Your task to perform on an android device: Do I have any events this weekend? Image 0: 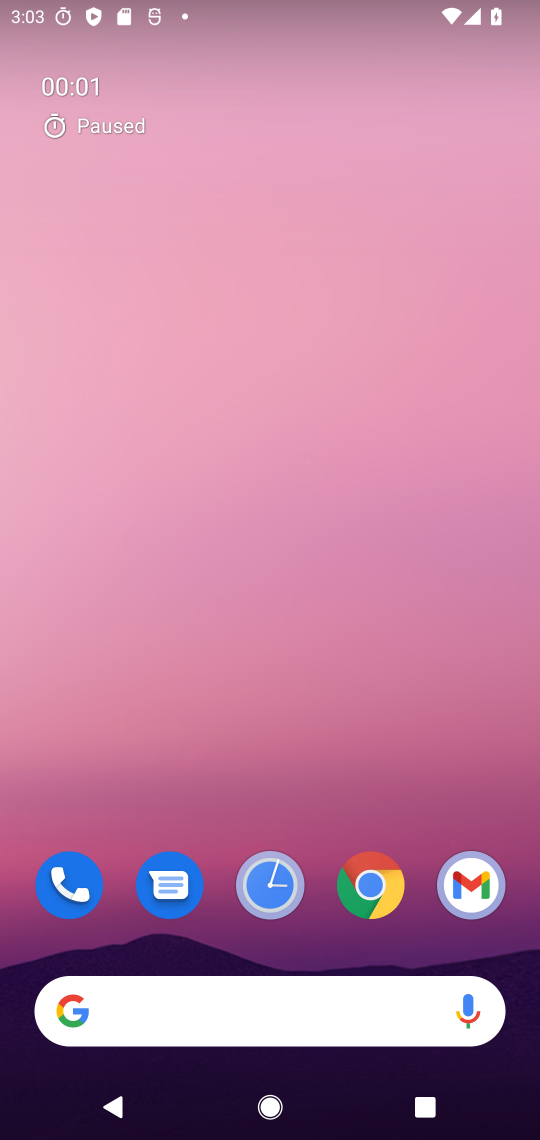
Step 0: drag from (258, 848) to (252, 168)
Your task to perform on an android device: Do I have any events this weekend? Image 1: 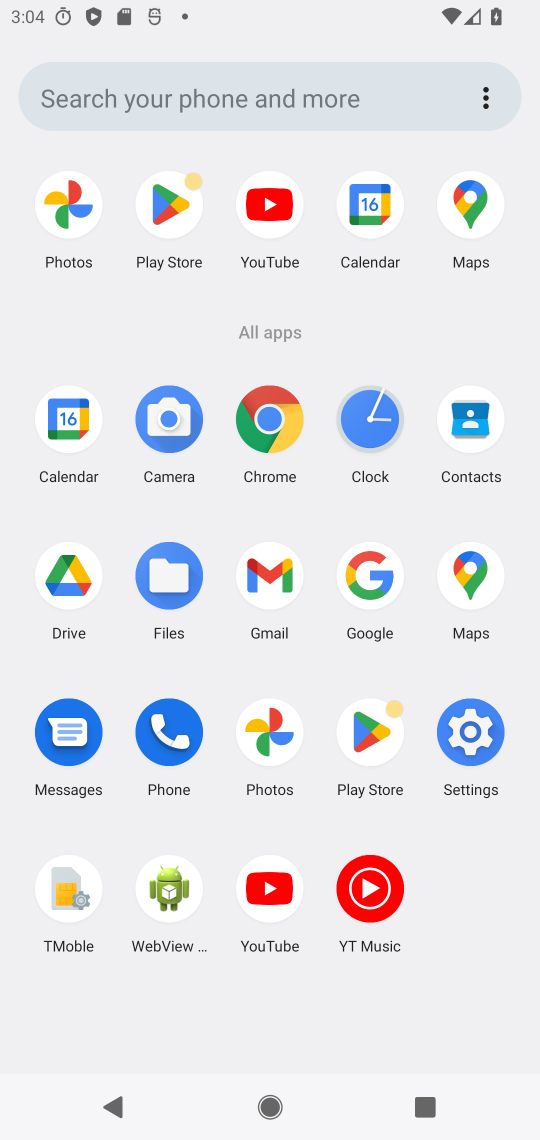
Step 1: click (74, 411)
Your task to perform on an android device: Do I have any events this weekend? Image 2: 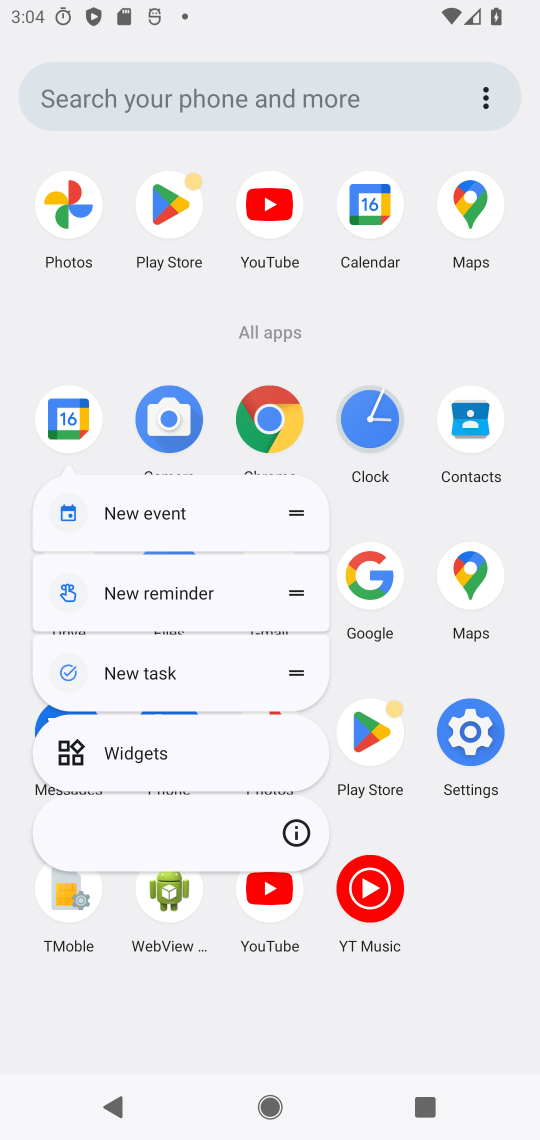
Step 2: click (74, 411)
Your task to perform on an android device: Do I have any events this weekend? Image 3: 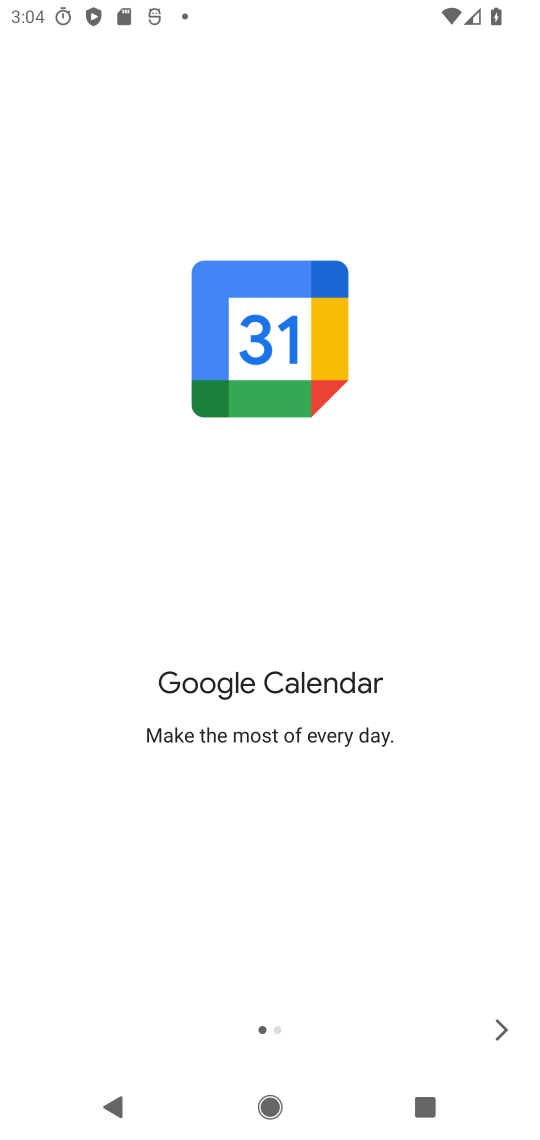
Step 3: click (476, 1019)
Your task to perform on an android device: Do I have any events this weekend? Image 4: 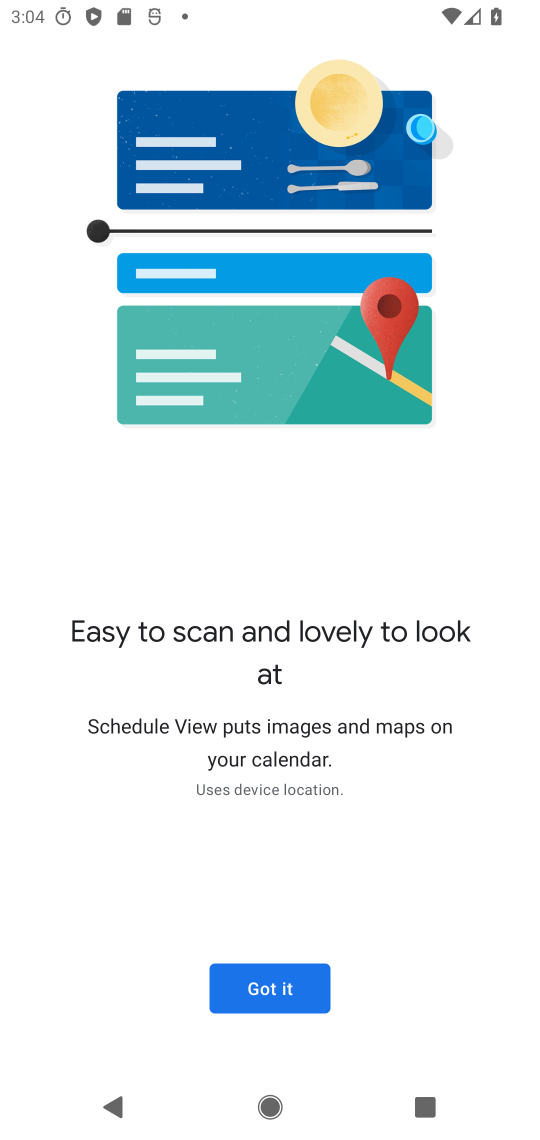
Step 4: click (287, 996)
Your task to perform on an android device: Do I have any events this weekend? Image 5: 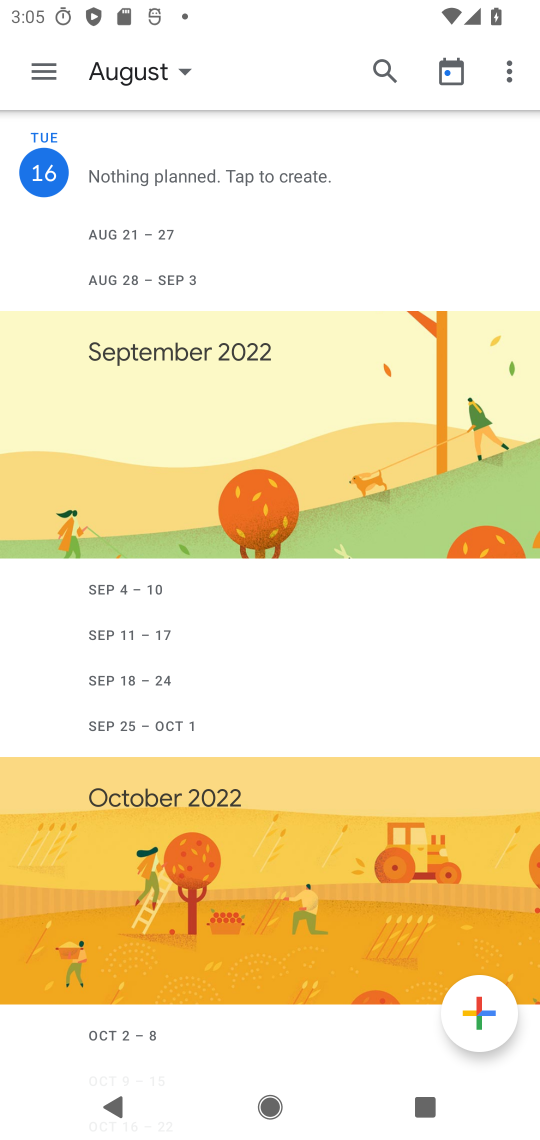
Step 5: click (51, 71)
Your task to perform on an android device: Do I have any events this weekend? Image 6: 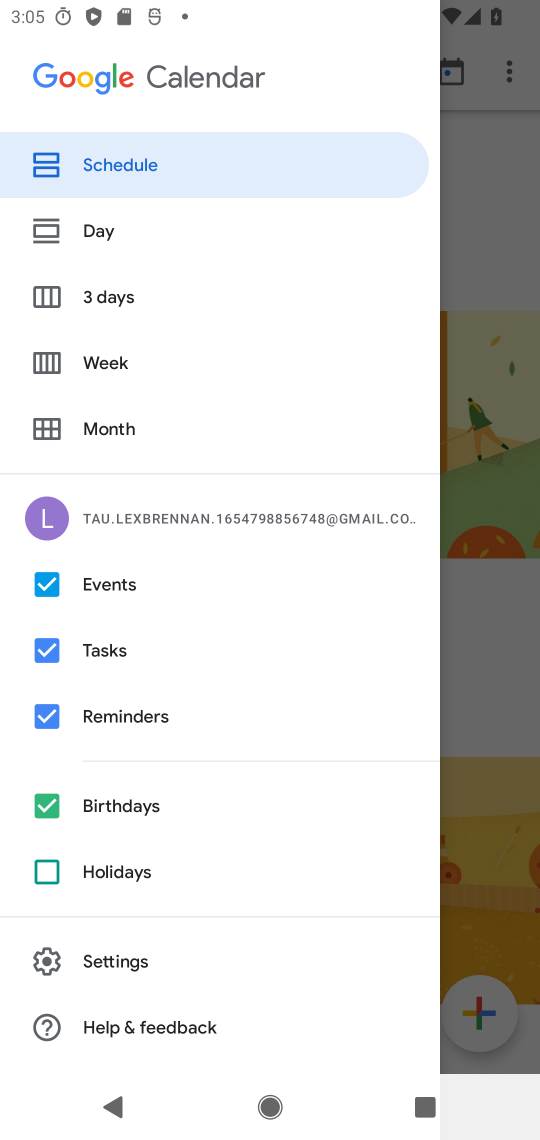
Step 6: click (123, 368)
Your task to perform on an android device: Do I have any events this weekend? Image 7: 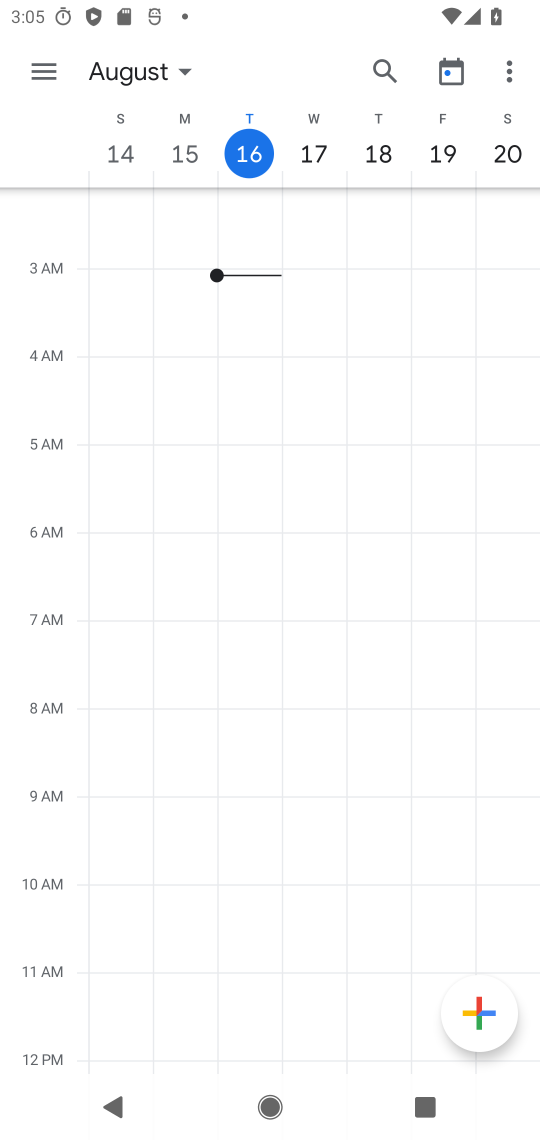
Step 7: click (43, 72)
Your task to perform on an android device: Do I have any events this weekend? Image 8: 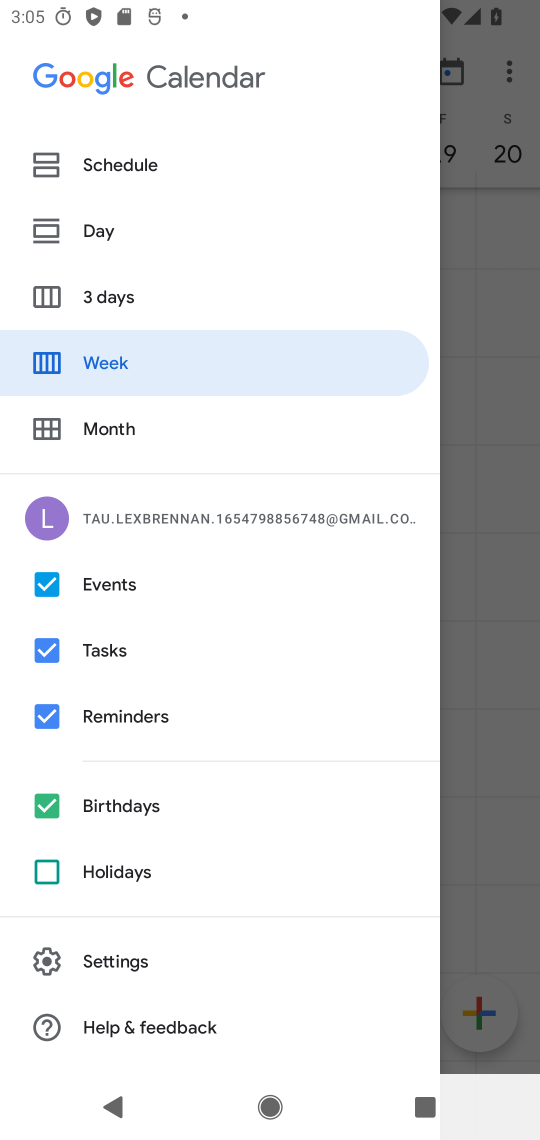
Step 8: click (118, 599)
Your task to perform on an android device: Do I have any events this weekend? Image 9: 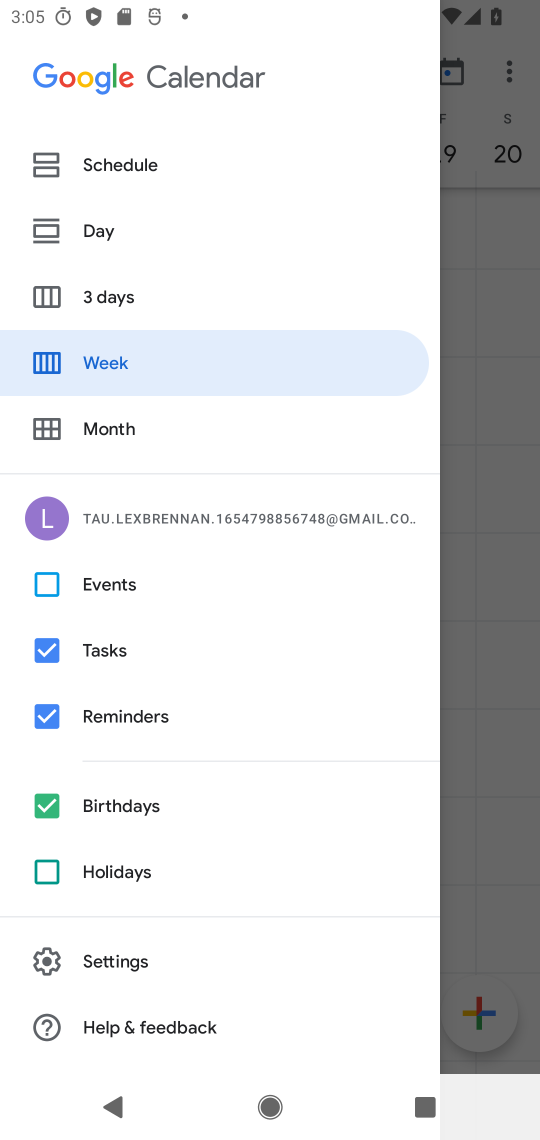
Step 9: click (118, 599)
Your task to perform on an android device: Do I have any events this weekend? Image 10: 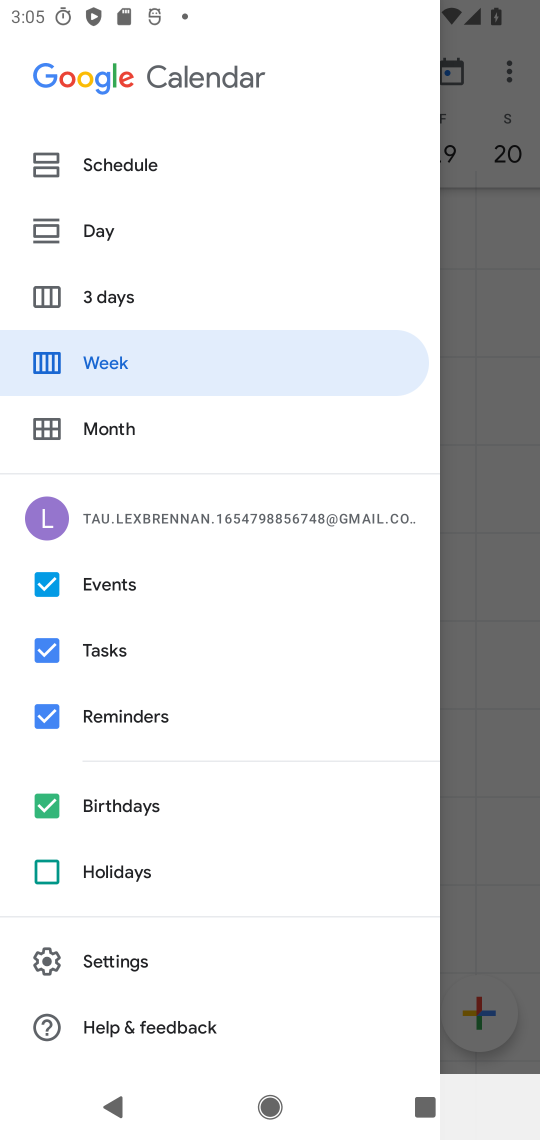
Step 10: click (157, 350)
Your task to perform on an android device: Do I have any events this weekend? Image 11: 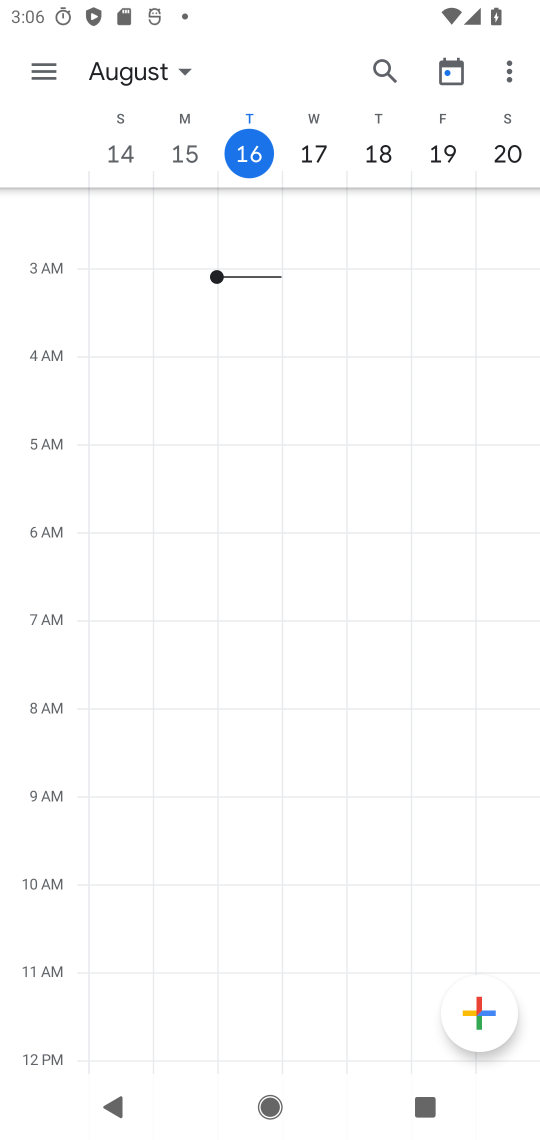
Step 11: task complete